Your task to perform on an android device: delete location history Image 0: 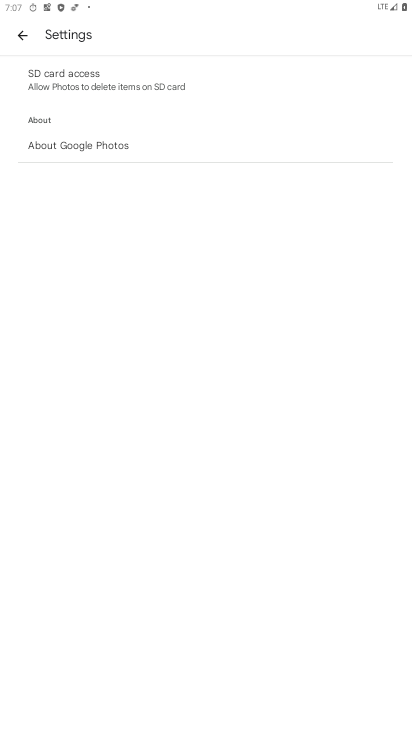
Step 0: press home button
Your task to perform on an android device: delete location history Image 1: 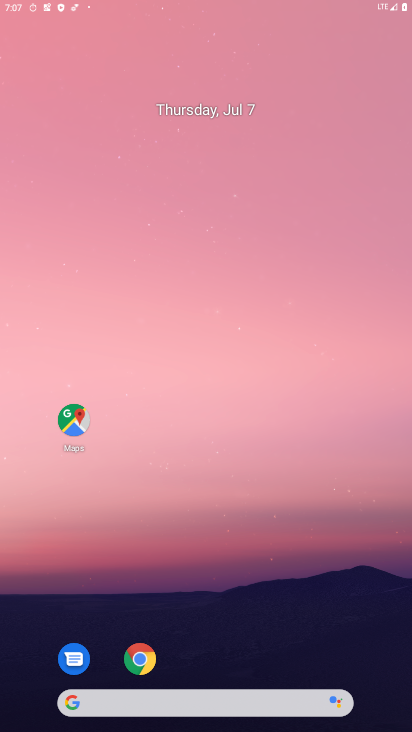
Step 1: drag from (362, 693) to (212, 66)
Your task to perform on an android device: delete location history Image 2: 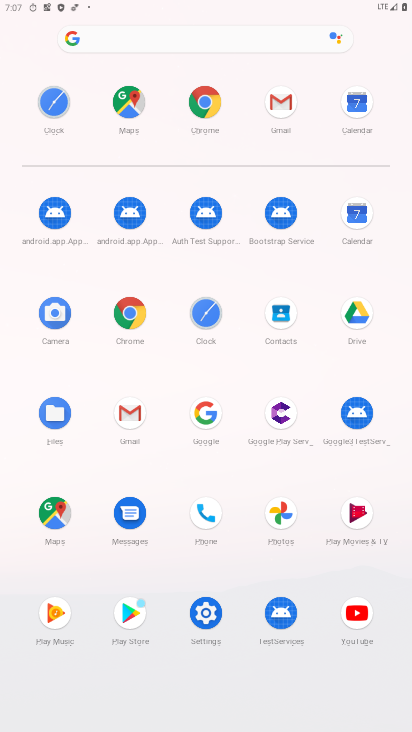
Step 2: click (194, 603)
Your task to perform on an android device: delete location history Image 3: 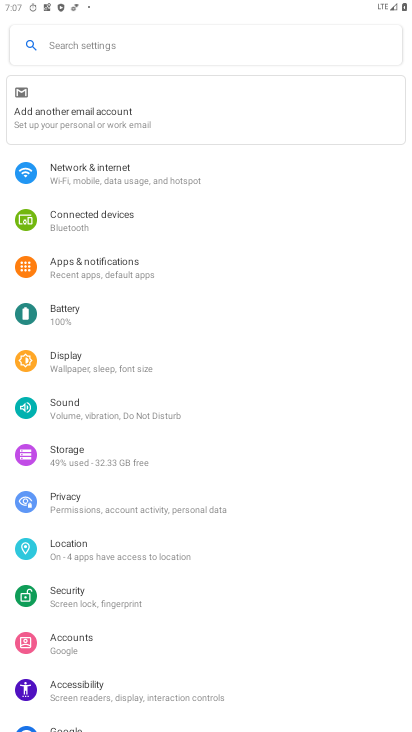
Step 3: click (60, 564)
Your task to perform on an android device: delete location history Image 4: 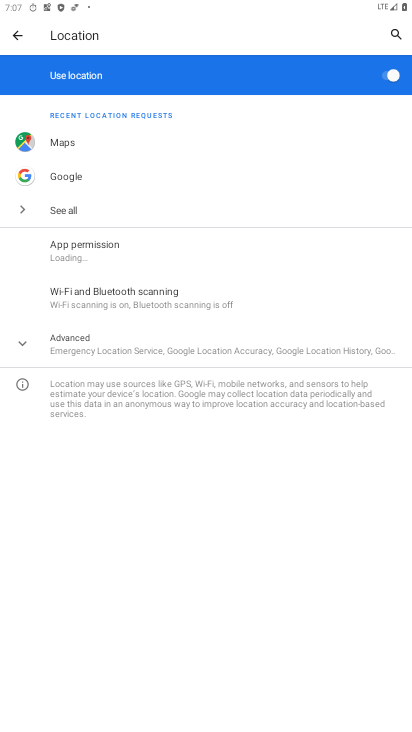
Step 4: click (38, 350)
Your task to perform on an android device: delete location history Image 5: 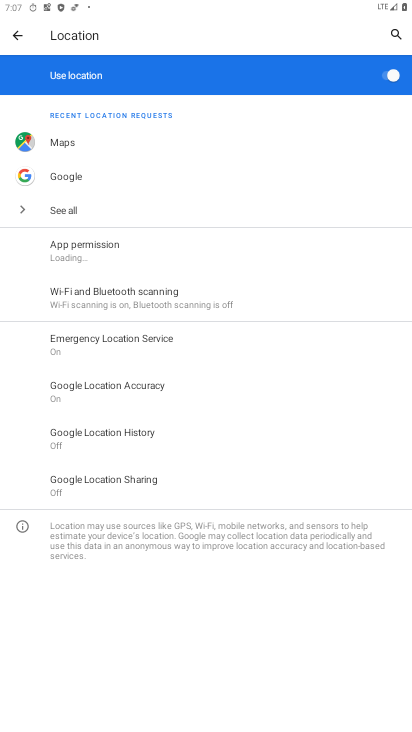
Step 5: click (86, 452)
Your task to perform on an android device: delete location history Image 6: 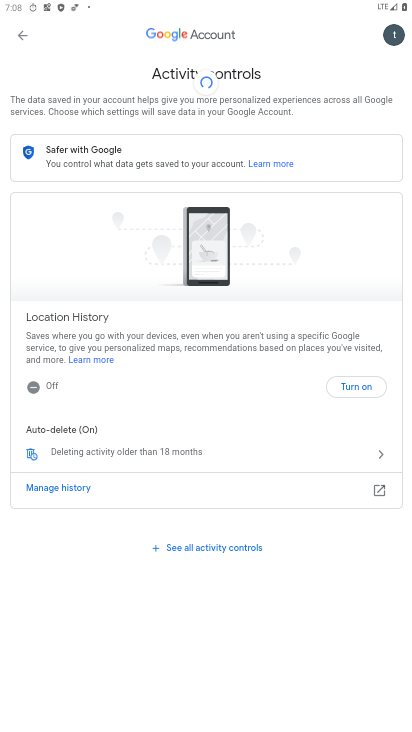
Step 6: click (84, 448)
Your task to perform on an android device: delete location history Image 7: 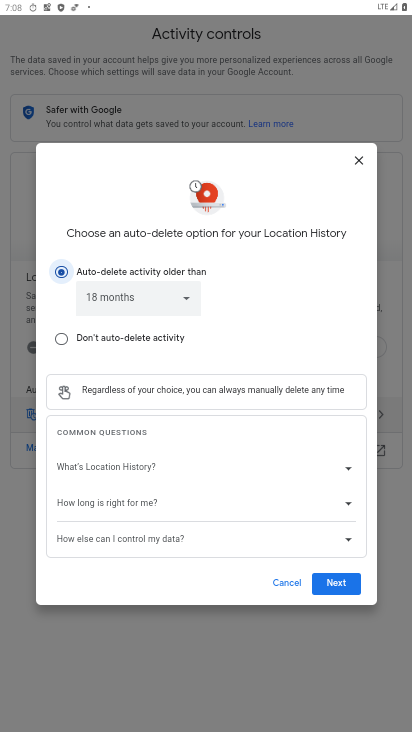
Step 7: click (339, 585)
Your task to perform on an android device: delete location history Image 8: 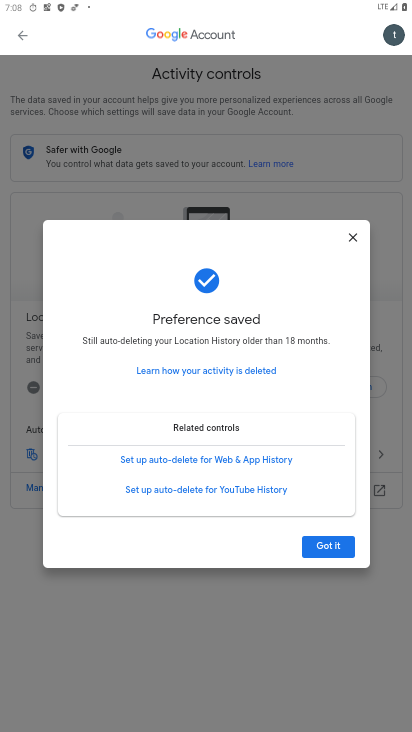
Step 8: click (337, 554)
Your task to perform on an android device: delete location history Image 9: 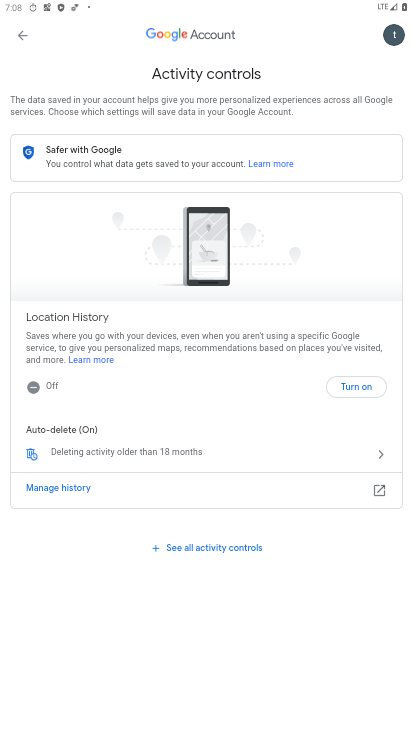
Step 9: task complete